Your task to perform on an android device: turn on the 24-hour format for clock Image 0: 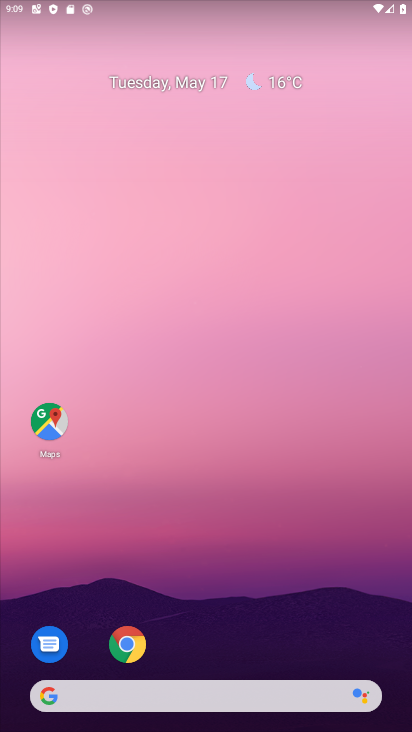
Step 0: drag from (188, 651) to (306, 157)
Your task to perform on an android device: turn on the 24-hour format for clock Image 1: 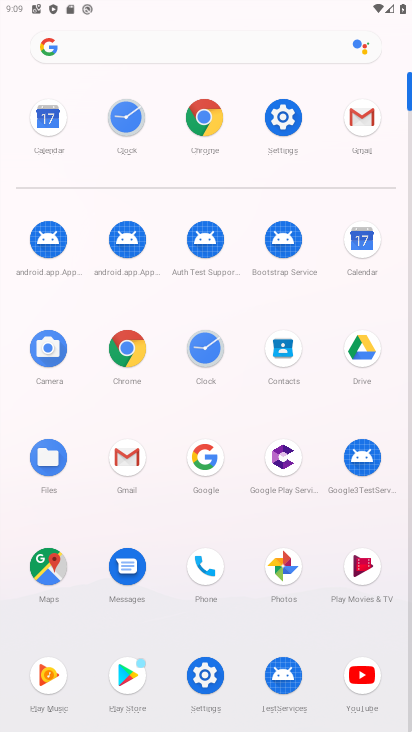
Step 1: click (215, 344)
Your task to perform on an android device: turn on the 24-hour format for clock Image 2: 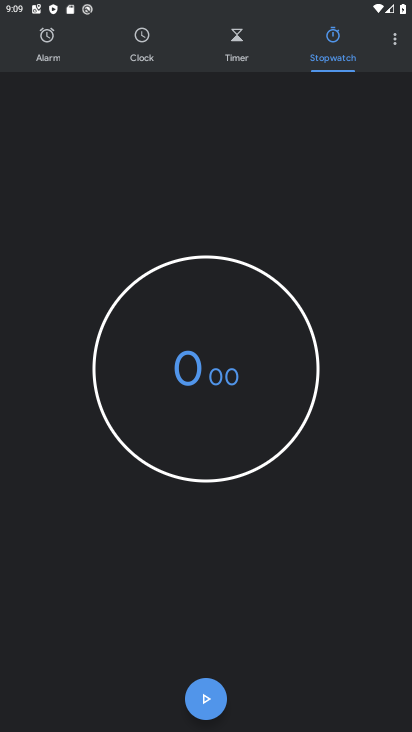
Step 2: click (395, 39)
Your task to perform on an android device: turn on the 24-hour format for clock Image 3: 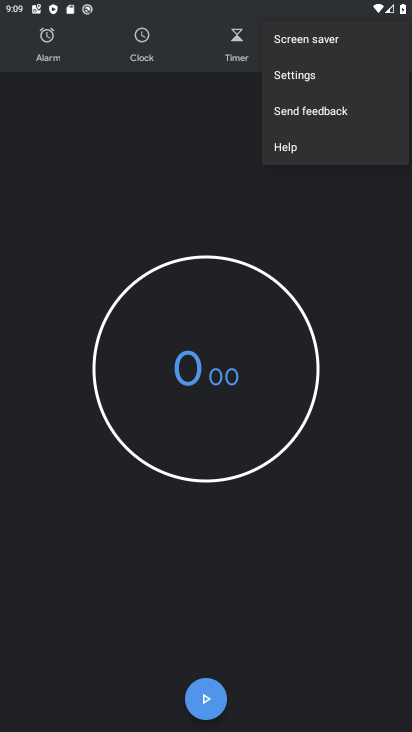
Step 3: click (322, 75)
Your task to perform on an android device: turn on the 24-hour format for clock Image 4: 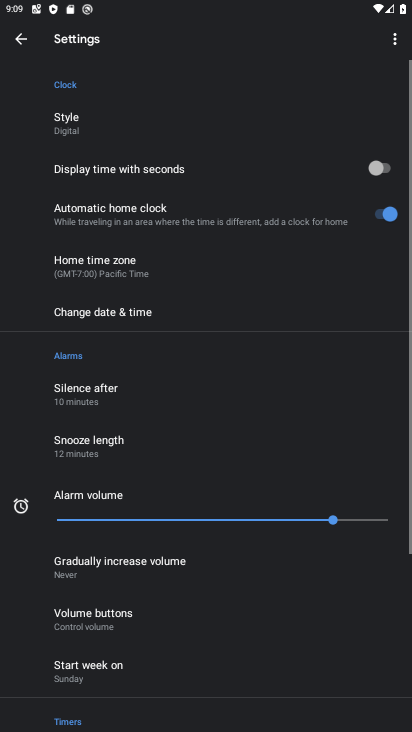
Step 4: click (143, 319)
Your task to perform on an android device: turn on the 24-hour format for clock Image 5: 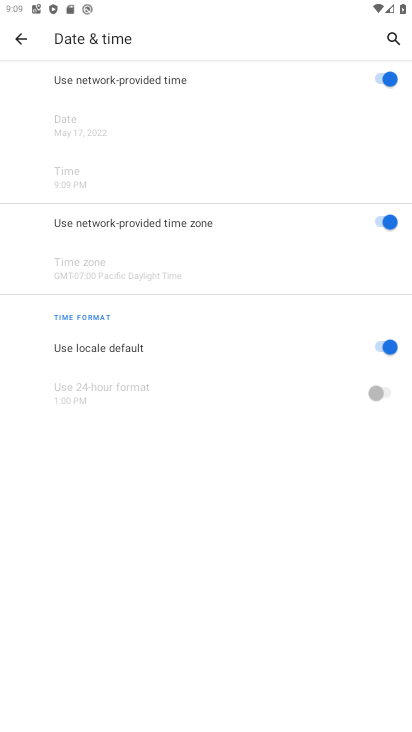
Step 5: click (389, 347)
Your task to perform on an android device: turn on the 24-hour format for clock Image 6: 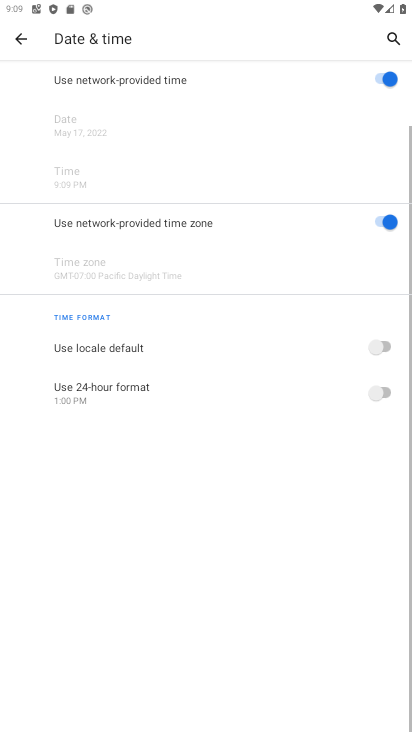
Step 6: click (378, 386)
Your task to perform on an android device: turn on the 24-hour format for clock Image 7: 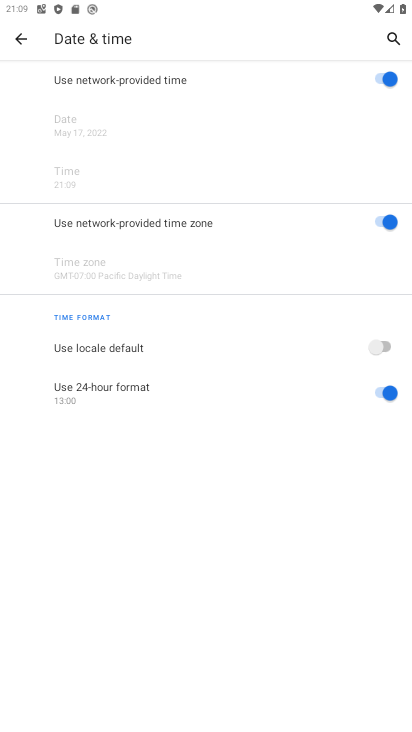
Step 7: task complete